Your task to perform on an android device: Open sound settings Image 0: 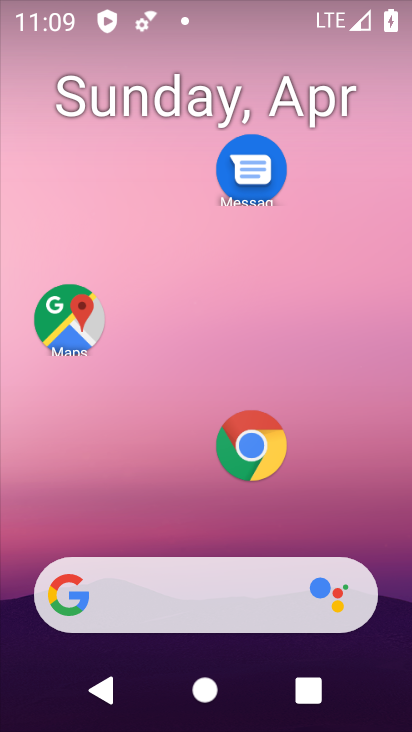
Step 0: drag from (128, 600) to (284, 121)
Your task to perform on an android device: Open sound settings Image 1: 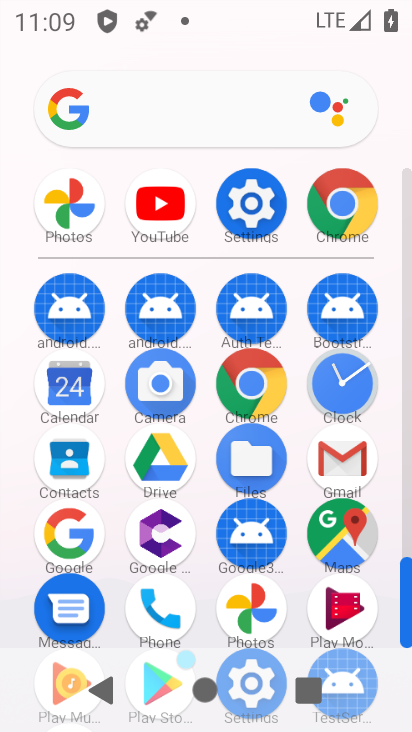
Step 1: click (261, 206)
Your task to perform on an android device: Open sound settings Image 2: 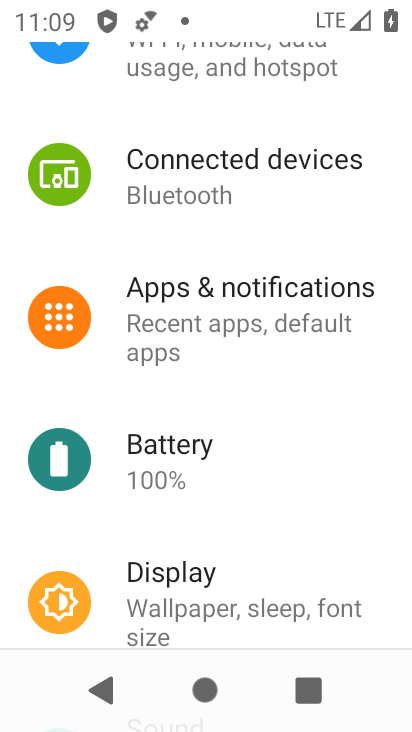
Step 2: drag from (219, 539) to (277, 76)
Your task to perform on an android device: Open sound settings Image 3: 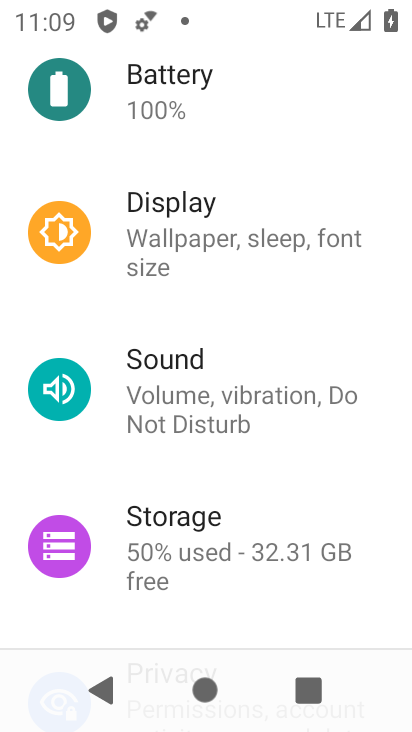
Step 3: click (217, 377)
Your task to perform on an android device: Open sound settings Image 4: 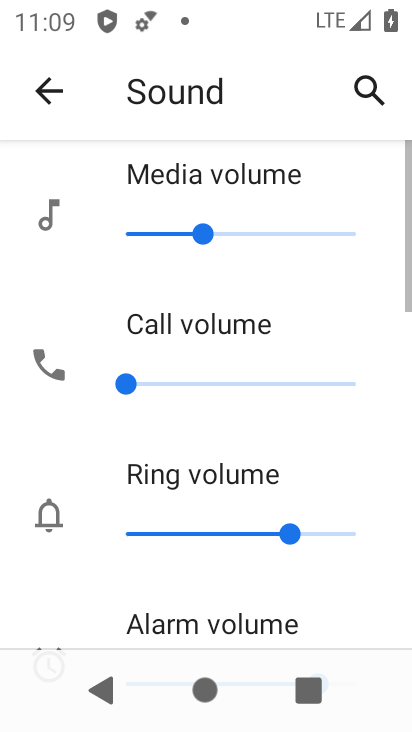
Step 4: task complete